Your task to perform on an android device: Open Google Chrome and open the bookmarks view Image 0: 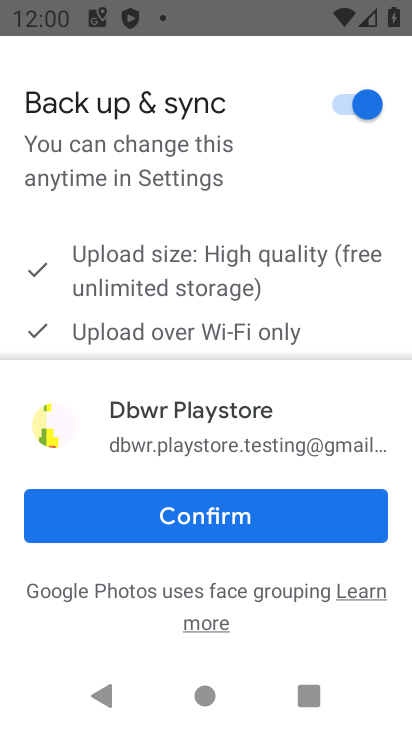
Step 0: press home button
Your task to perform on an android device: Open Google Chrome and open the bookmarks view Image 1: 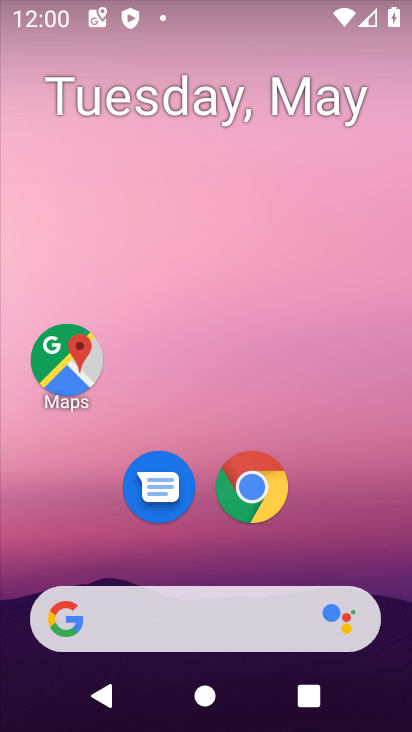
Step 1: drag from (389, 570) to (376, 280)
Your task to perform on an android device: Open Google Chrome and open the bookmarks view Image 2: 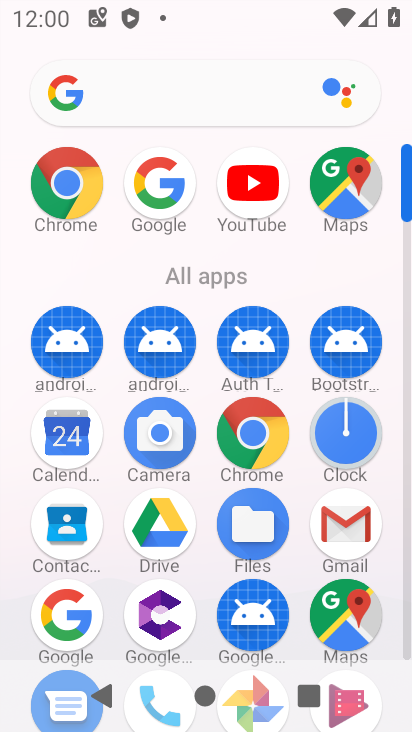
Step 2: click (282, 438)
Your task to perform on an android device: Open Google Chrome and open the bookmarks view Image 3: 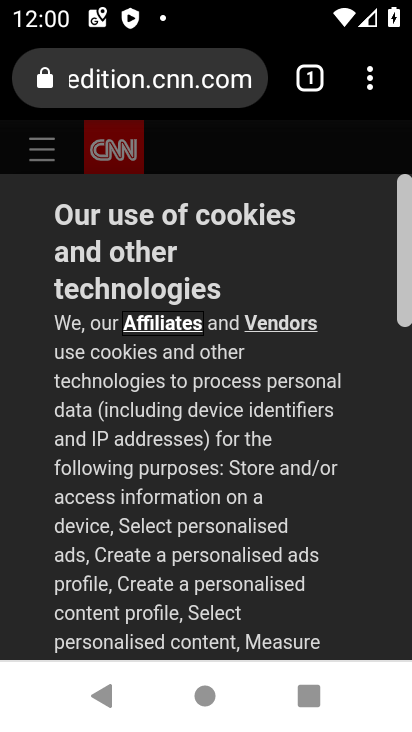
Step 3: drag from (349, 543) to (362, 399)
Your task to perform on an android device: Open Google Chrome and open the bookmarks view Image 4: 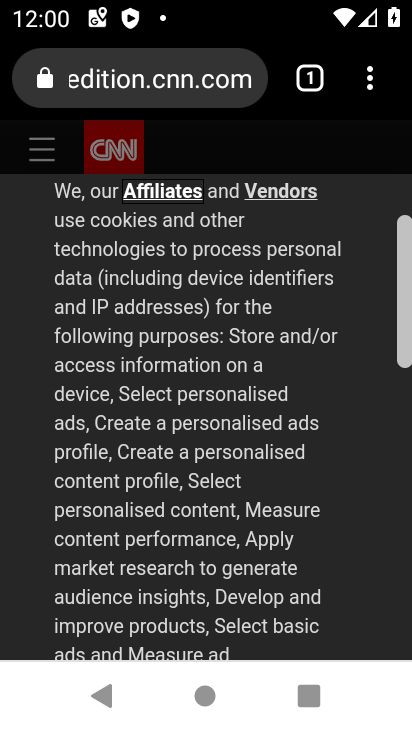
Step 4: click (372, 89)
Your task to perform on an android device: Open Google Chrome and open the bookmarks view Image 5: 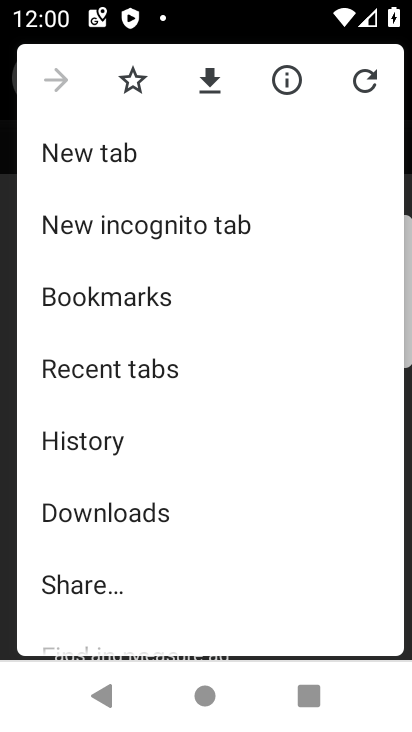
Step 5: drag from (288, 462) to (296, 322)
Your task to perform on an android device: Open Google Chrome and open the bookmarks view Image 6: 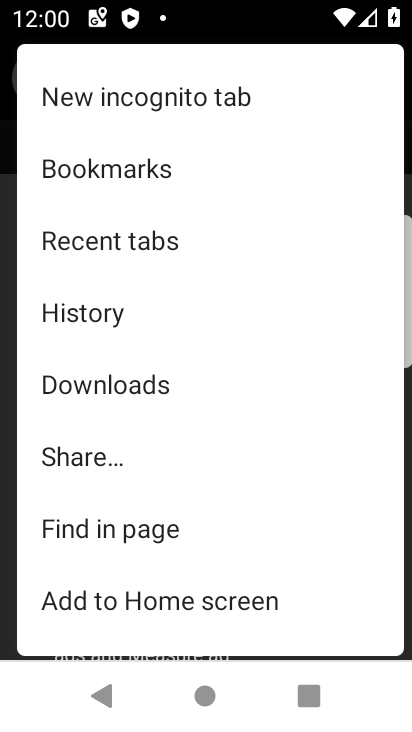
Step 6: drag from (292, 472) to (294, 364)
Your task to perform on an android device: Open Google Chrome and open the bookmarks view Image 7: 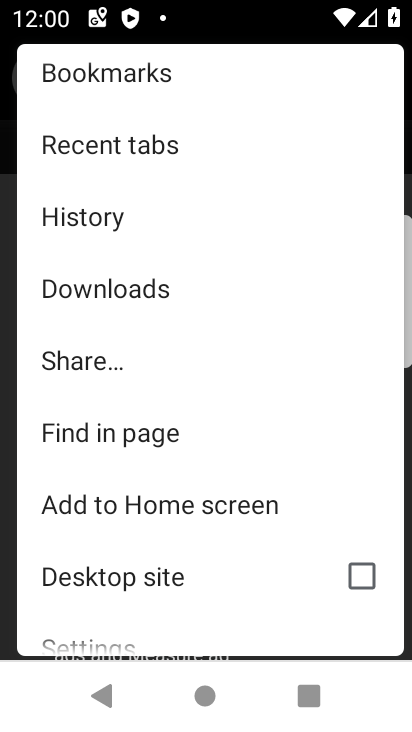
Step 7: drag from (280, 523) to (274, 376)
Your task to perform on an android device: Open Google Chrome and open the bookmarks view Image 8: 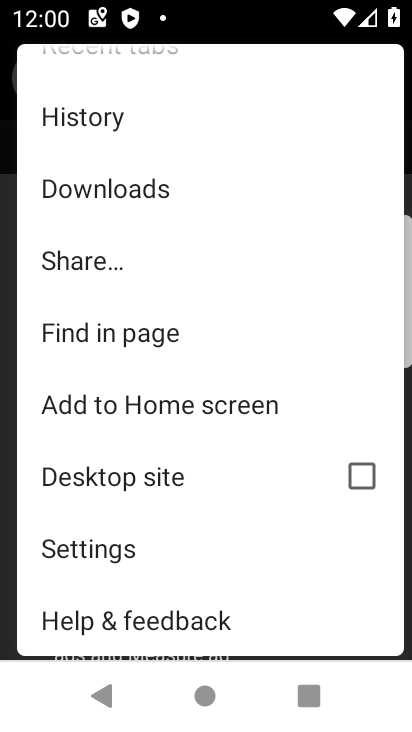
Step 8: drag from (272, 541) to (260, 401)
Your task to perform on an android device: Open Google Chrome and open the bookmarks view Image 9: 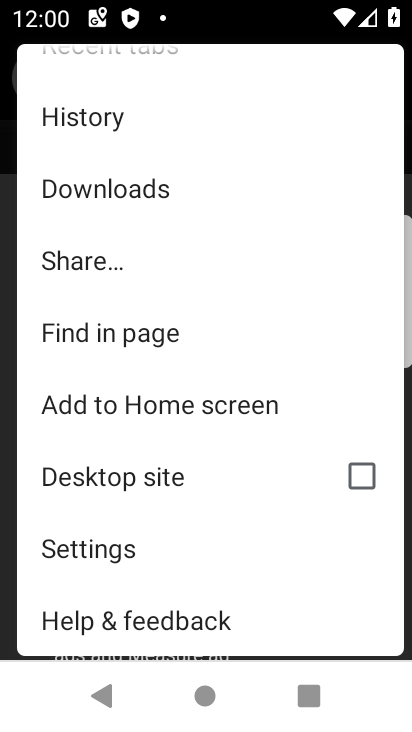
Step 9: drag from (223, 285) to (229, 422)
Your task to perform on an android device: Open Google Chrome and open the bookmarks view Image 10: 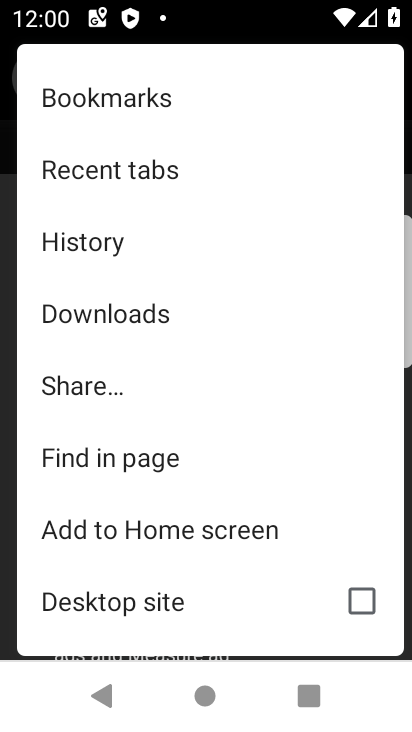
Step 10: drag from (234, 217) to (240, 346)
Your task to perform on an android device: Open Google Chrome and open the bookmarks view Image 11: 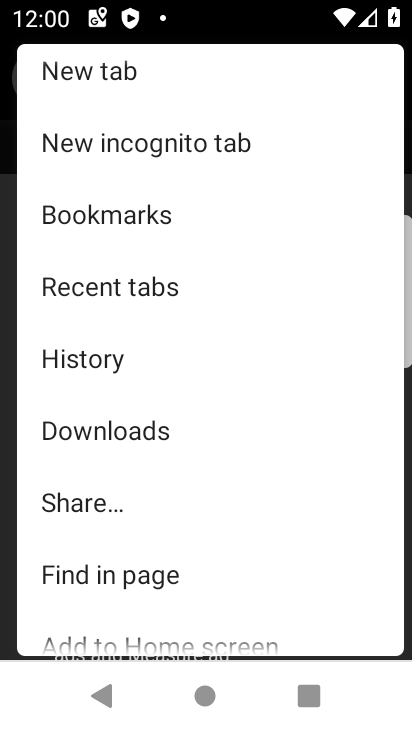
Step 11: click (169, 223)
Your task to perform on an android device: Open Google Chrome and open the bookmarks view Image 12: 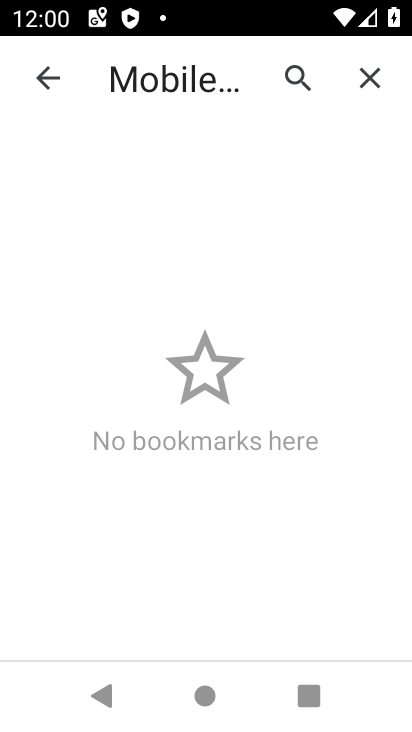
Step 12: task complete